Your task to perform on an android device: What's on my calendar today? Image 0: 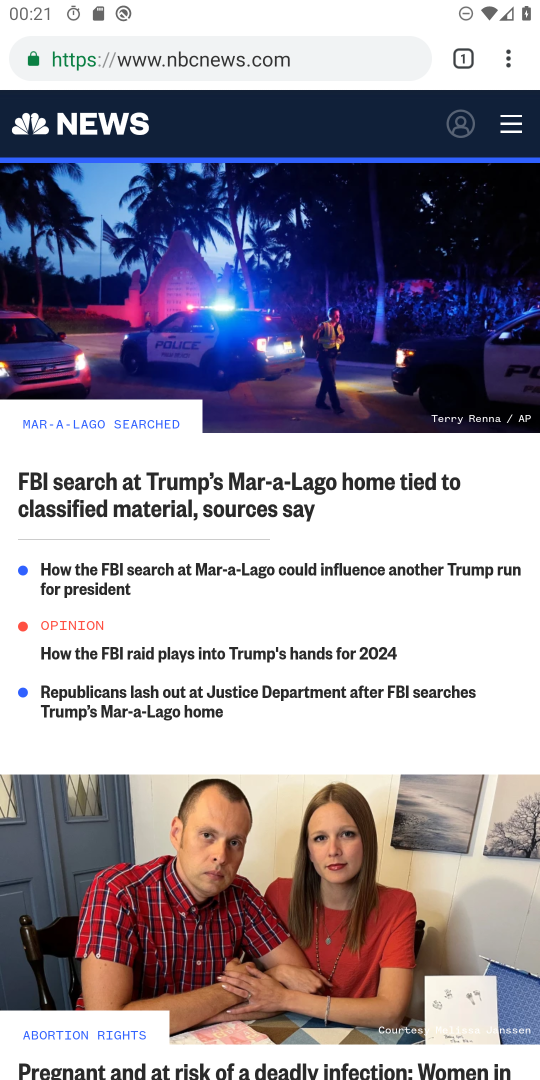
Step 0: press home button
Your task to perform on an android device: What's on my calendar today? Image 1: 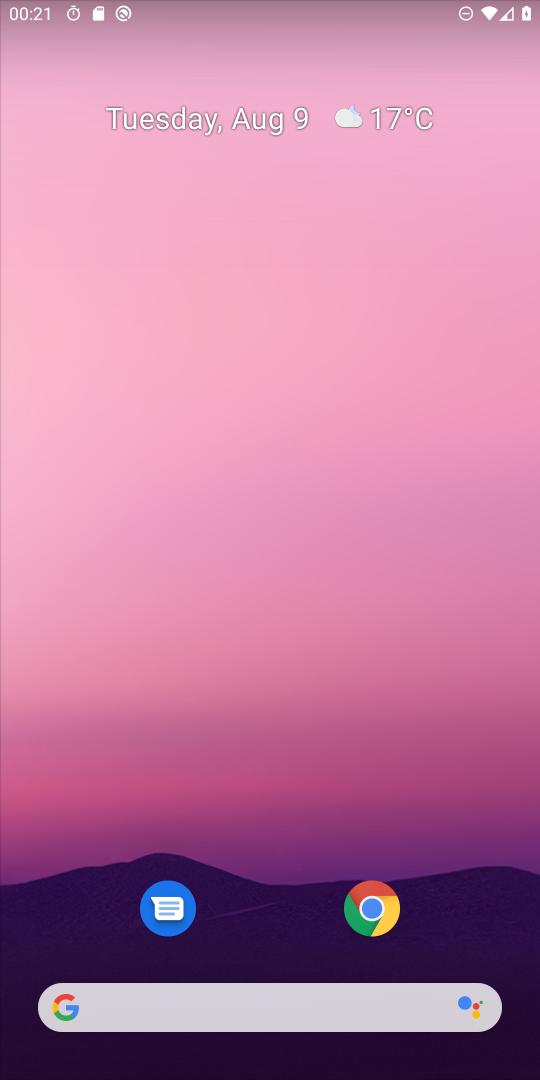
Step 1: drag from (291, 942) to (234, 84)
Your task to perform on an android device: What's on my calendar today? Image 2: 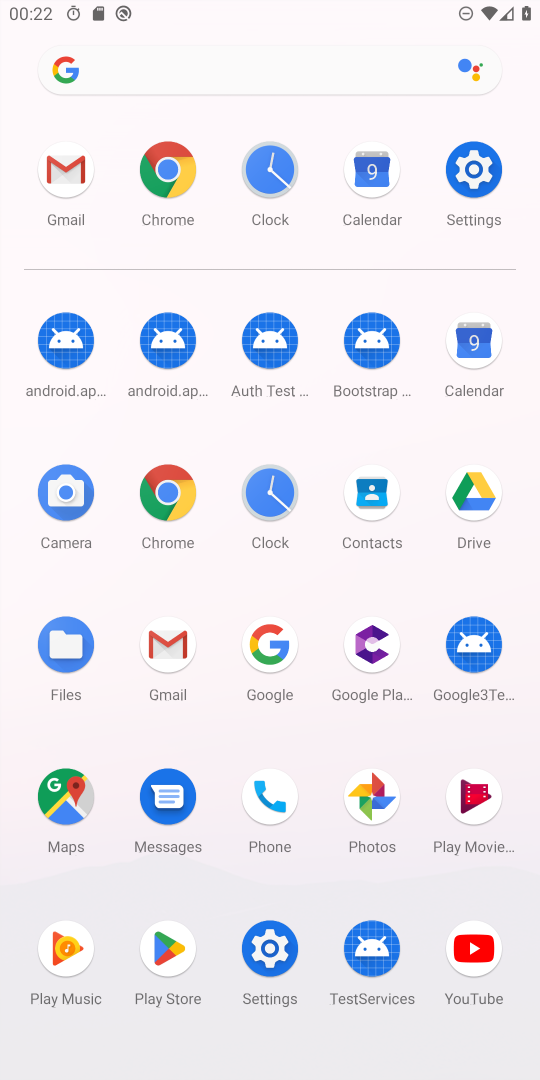
Step 2: click (472, 349)
Your task to perform on an android device: What's on my calendar today? Image 3: 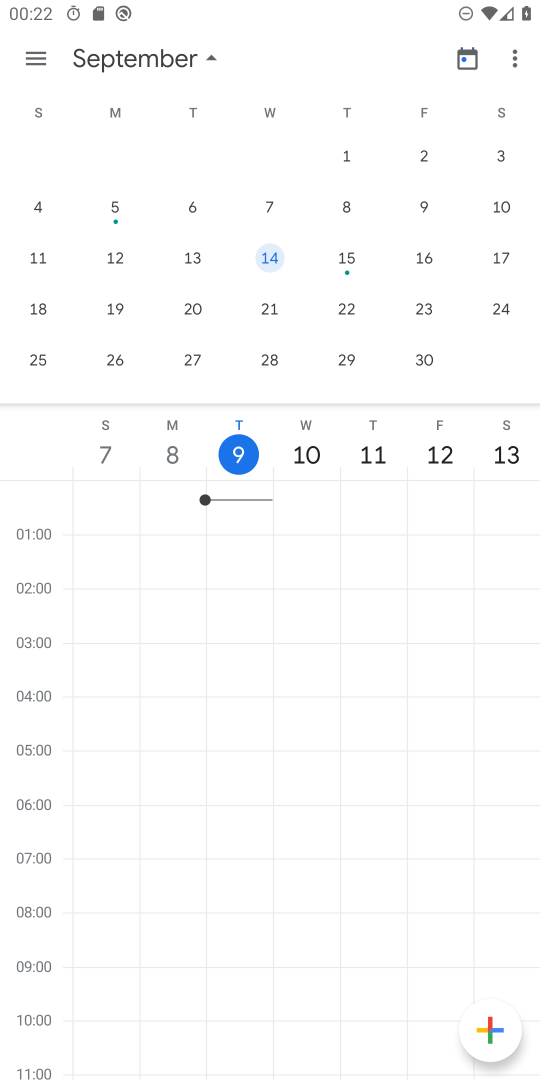
Step 3: click (154, 71)
Your task to perform on an android device: What's on my calendar today? Image 4: 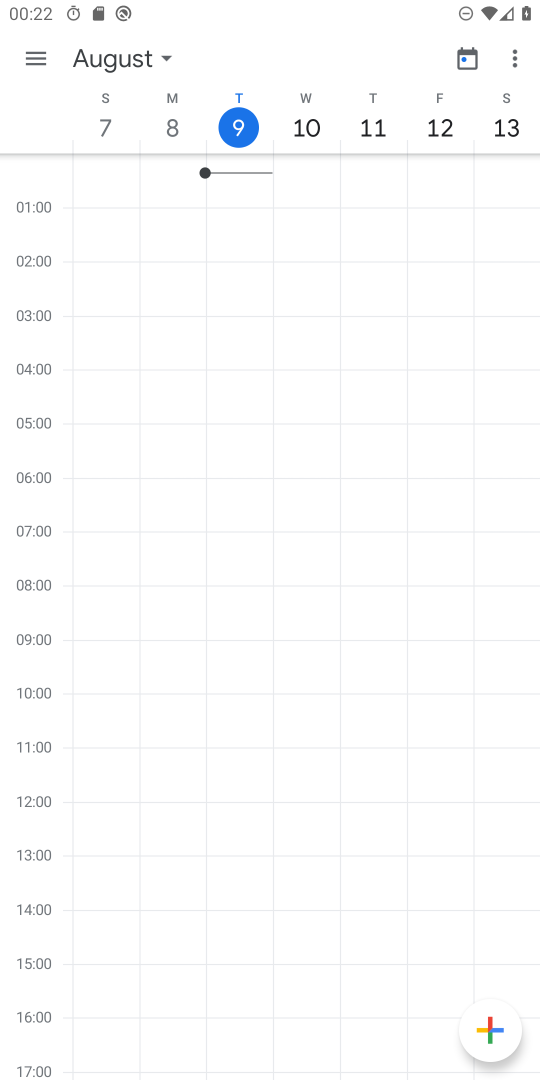
Step 4: click (36, 60)
Your task to perform on an android device: What's on my calendar today? Image 5: 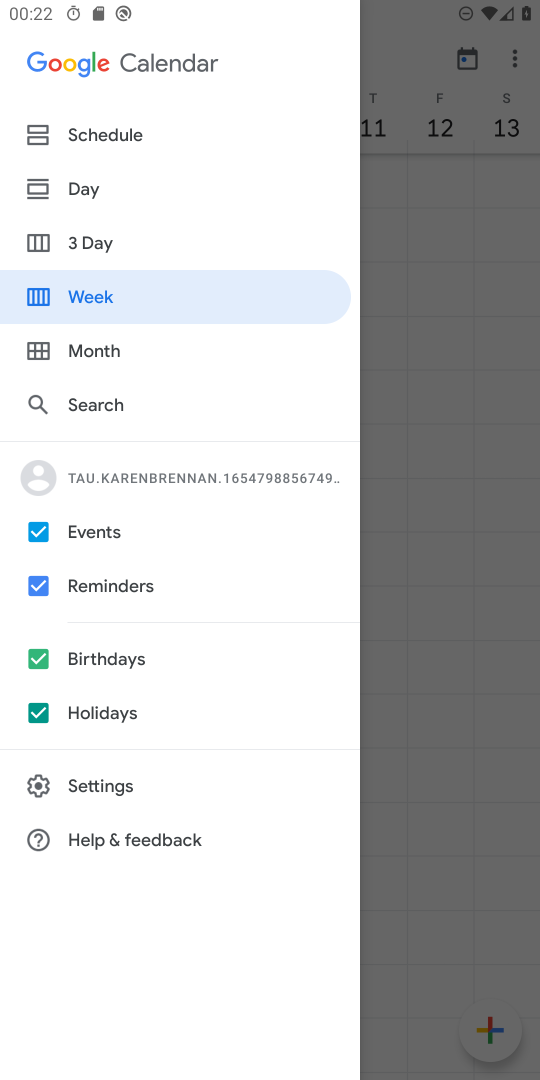
Step 5: click (69, 198)
Your task to perform on an android device: What's on my calendar today? Image 6: 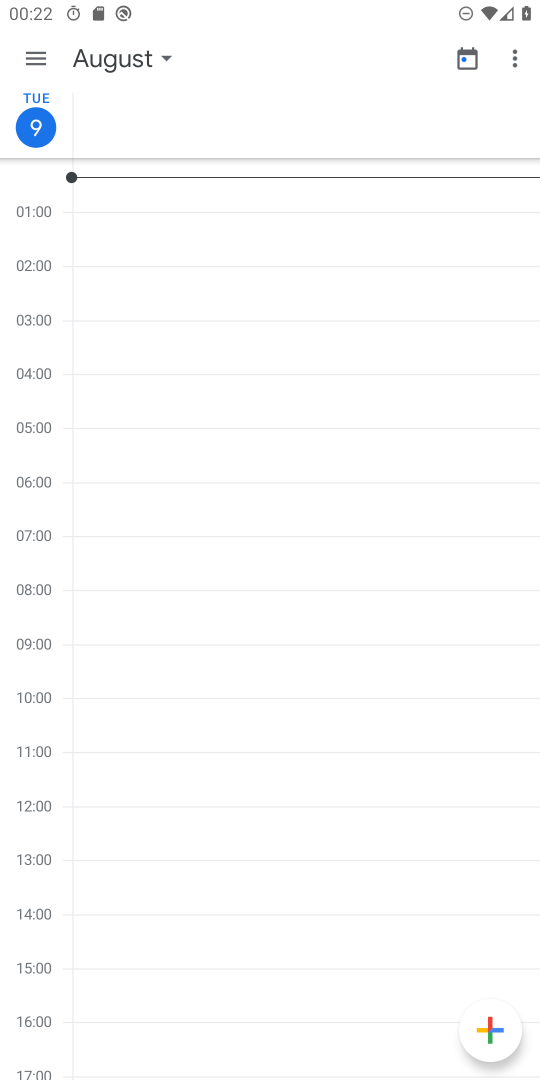
Step 6: task complete